Your task to perform on an android device: Is it going to rain today? Image 0: 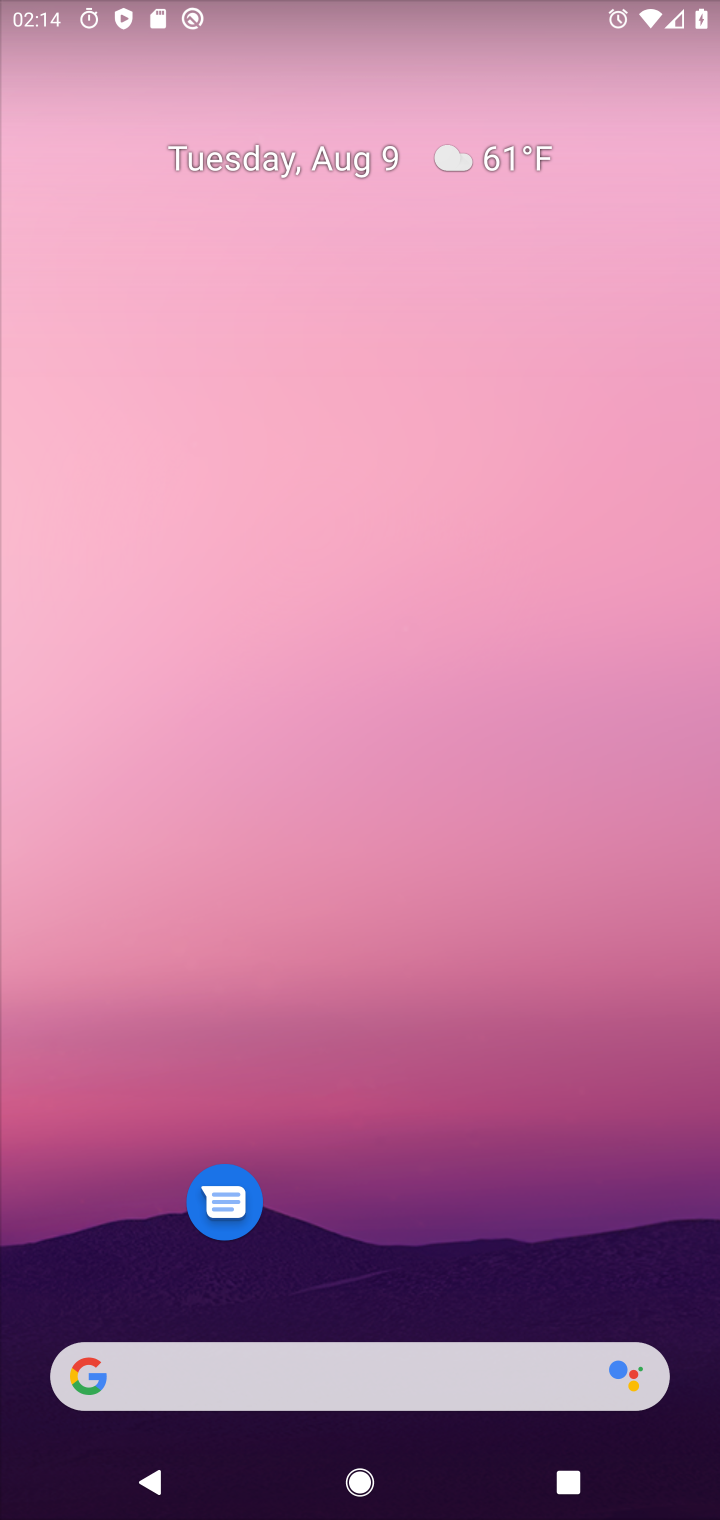
Step 0: drag from (413, 1358) to (428, 17)
Your task to perform on an android device: Is it going to rain today? Image 1: 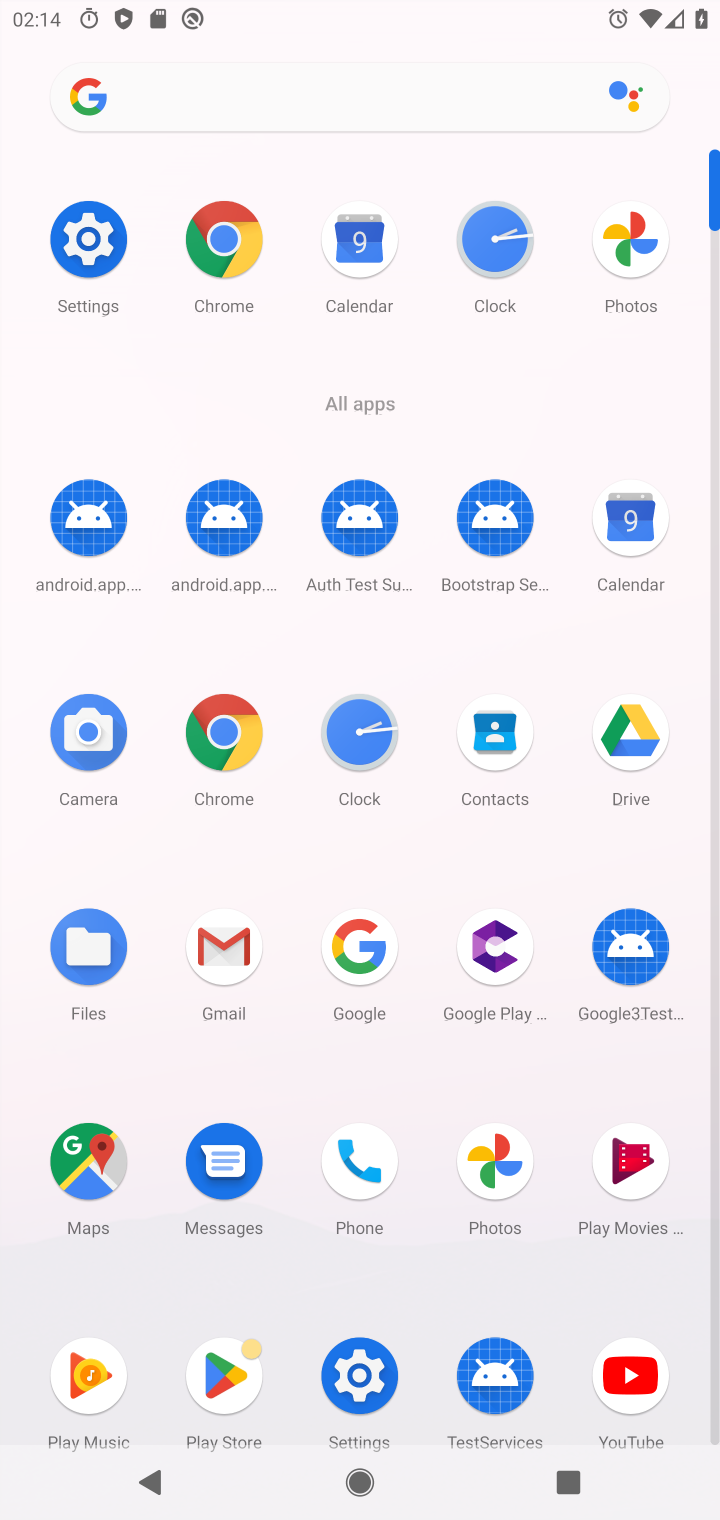
Step 1: click (233, 753)
Your task to perform on an android device: Is it going to rain today? Image 2: 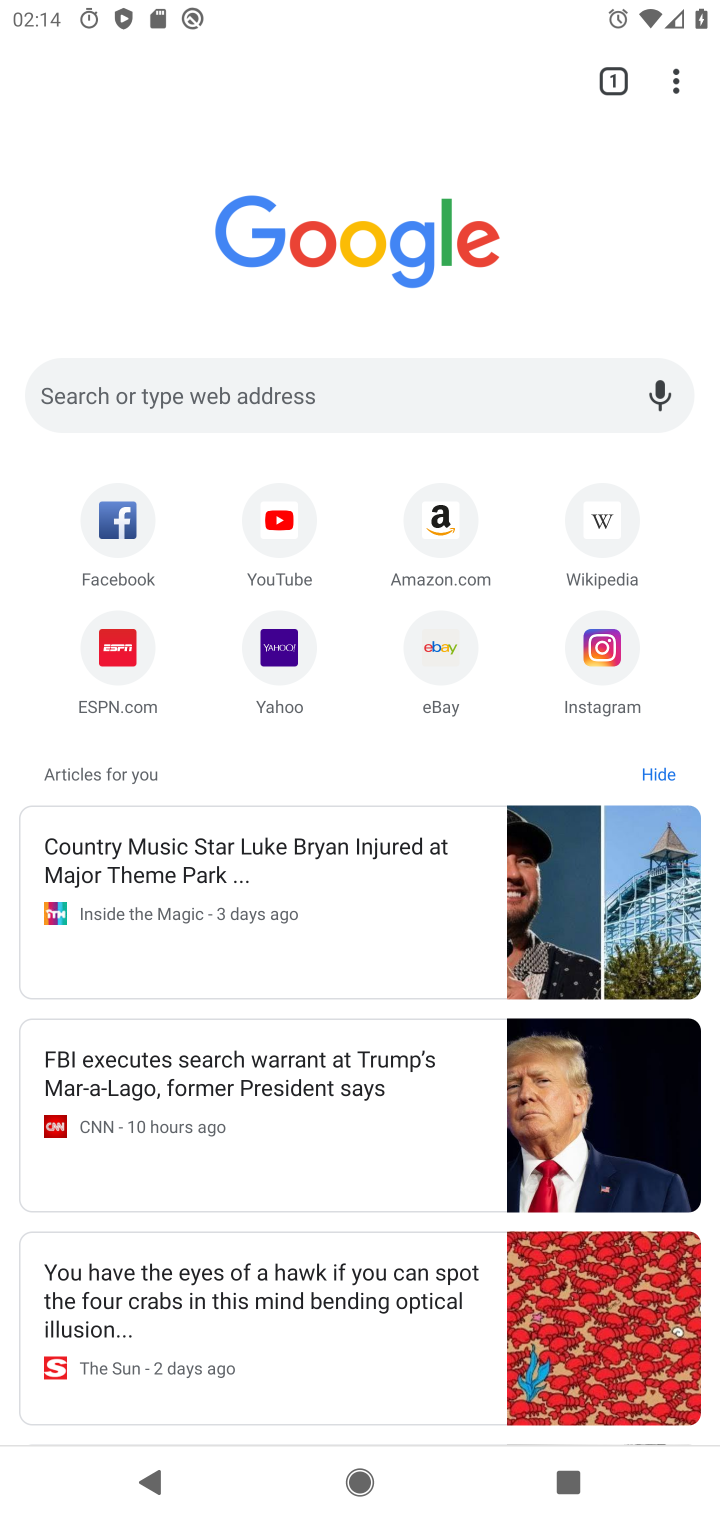
Step 2: click (372, 380)
Your task to perform on an android device: Is it going to rain today? Image 3: 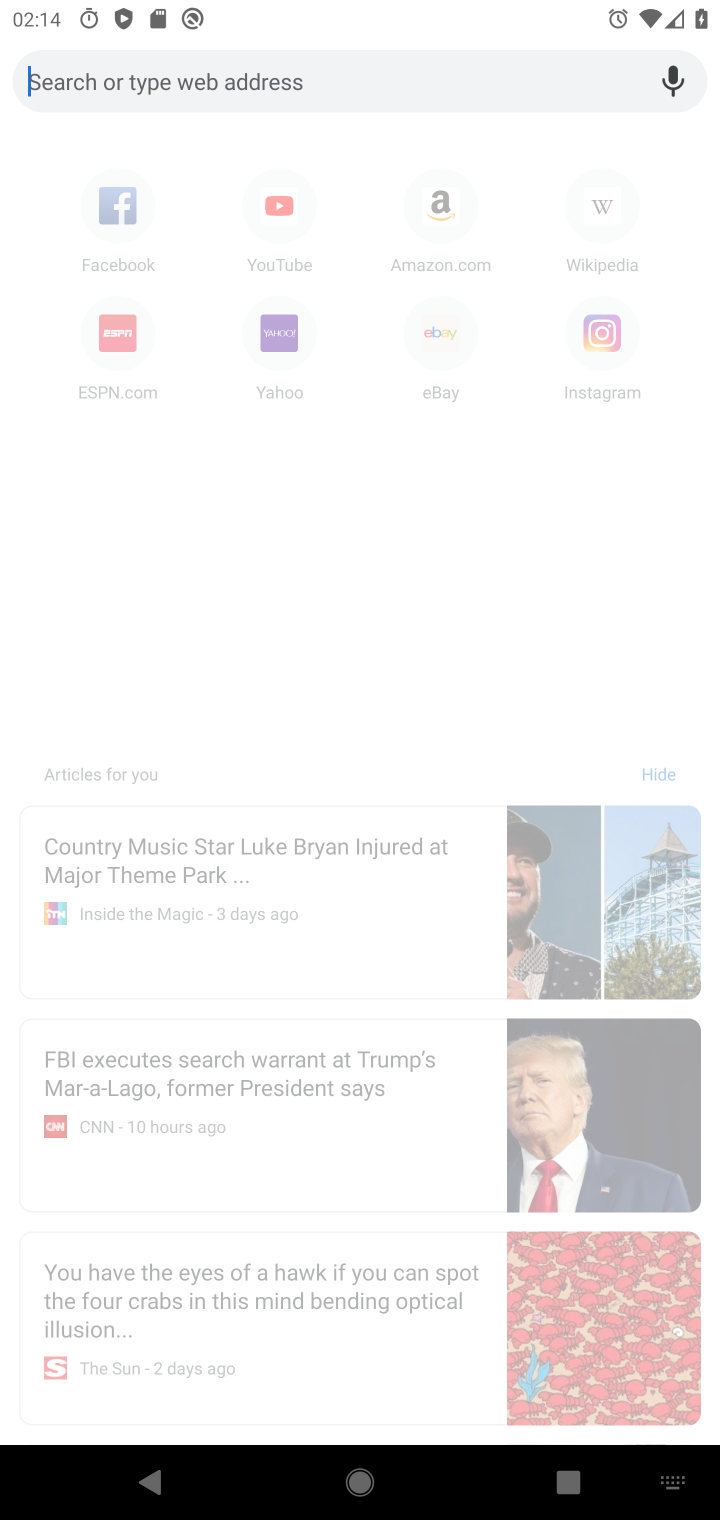
Step 3: type "is it going to rain today"
Your task to perform on an android device: Is it going to rain today? Image 4: 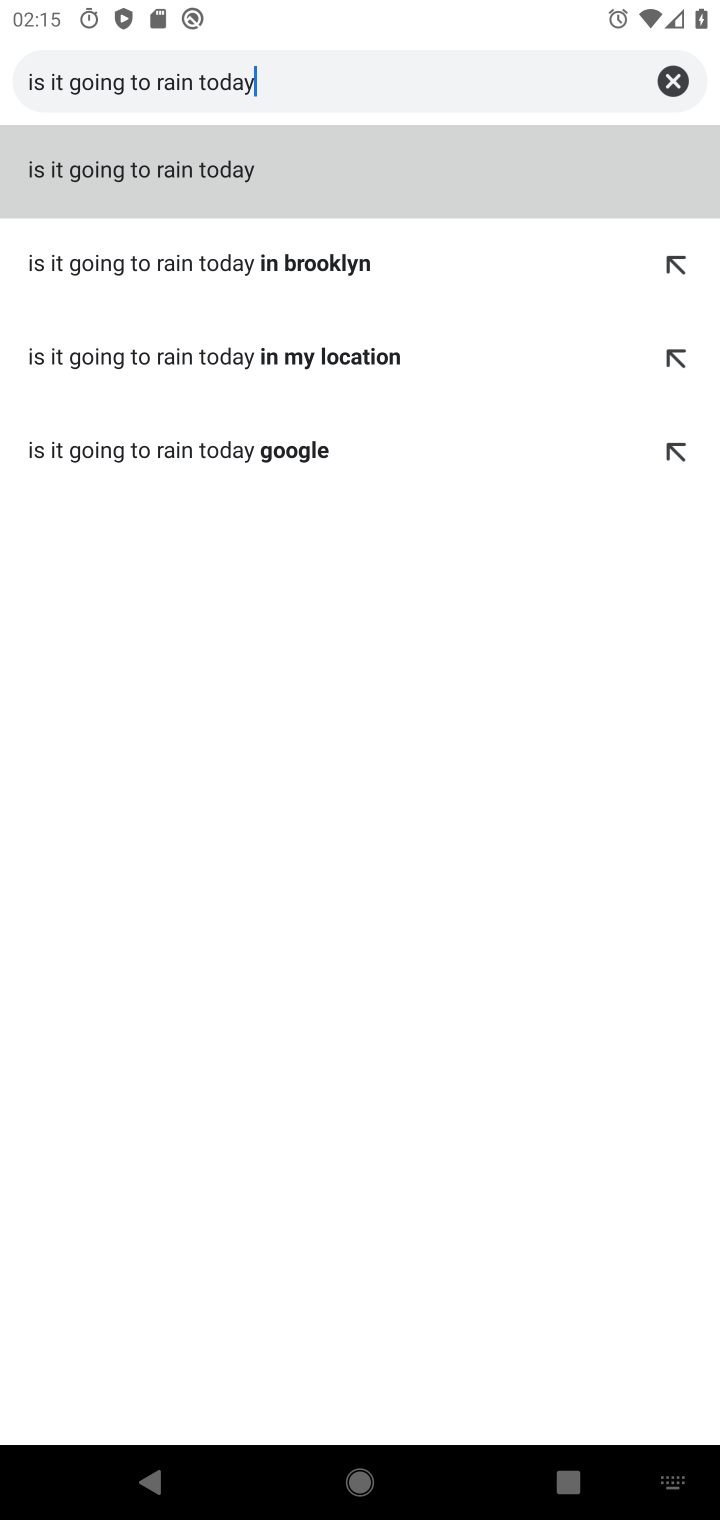
Step 4: click (172, 194)
Your task to perform on an android device: Is it going to rain today? Image 5: 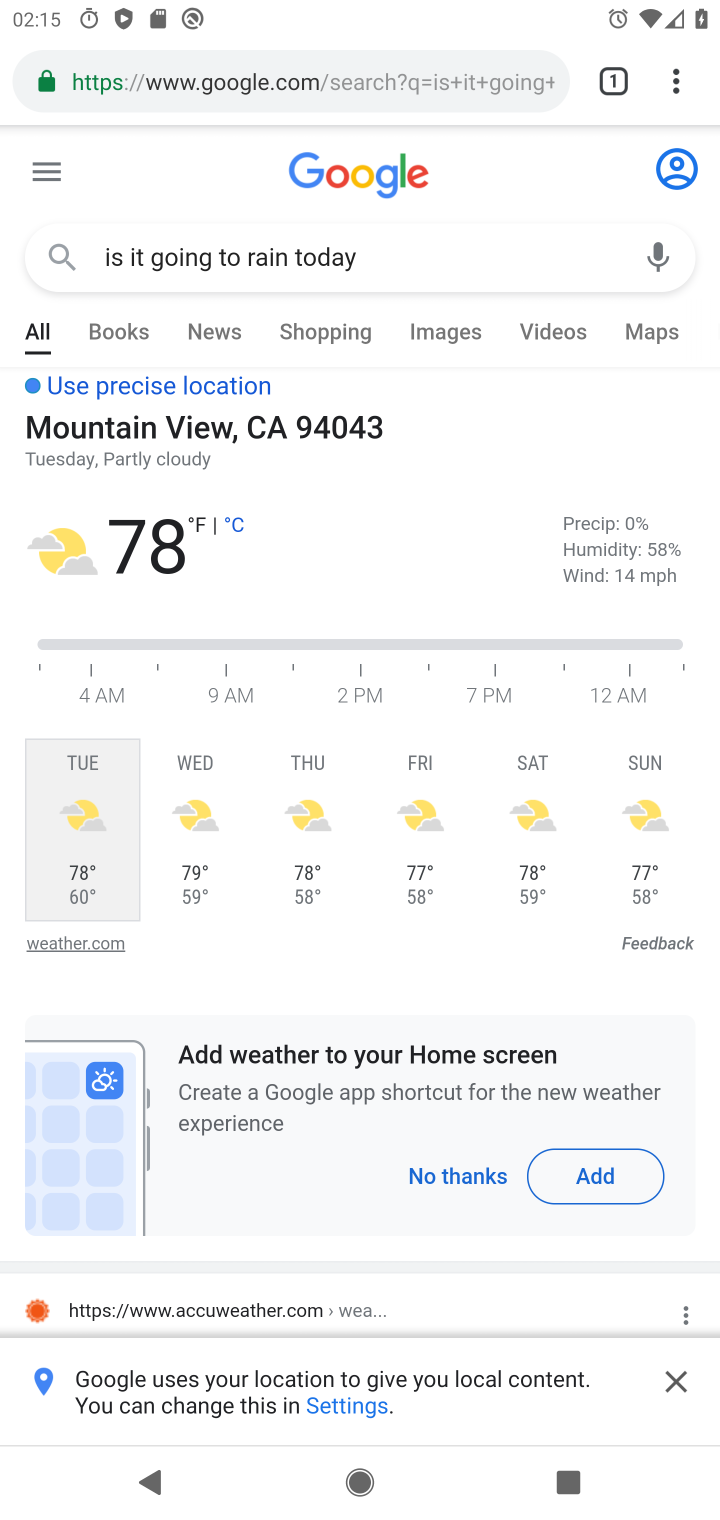
Step 5: task complete